Your task to perform on an android device: Open location settings Image 0: 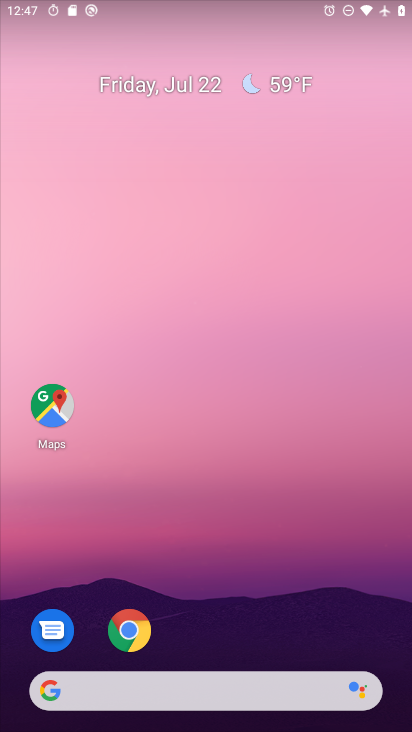
Step 0: press home button
Your task to perform on an android device: Open location settings Image 1: 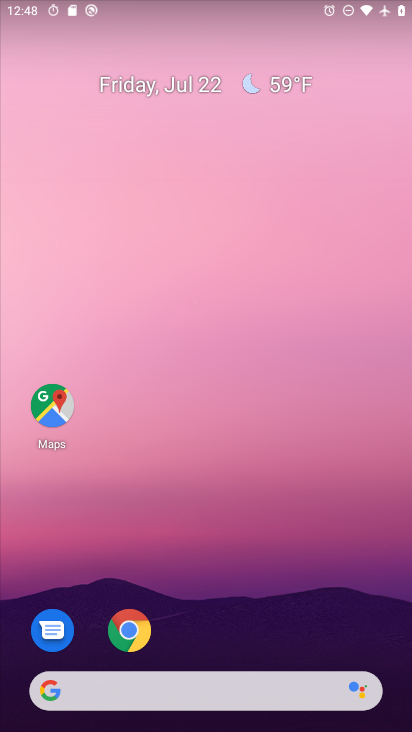
Step 1: drag from (229, 642) to (168, 242)
Your task to perform on an android device: Open location settings Image 2: 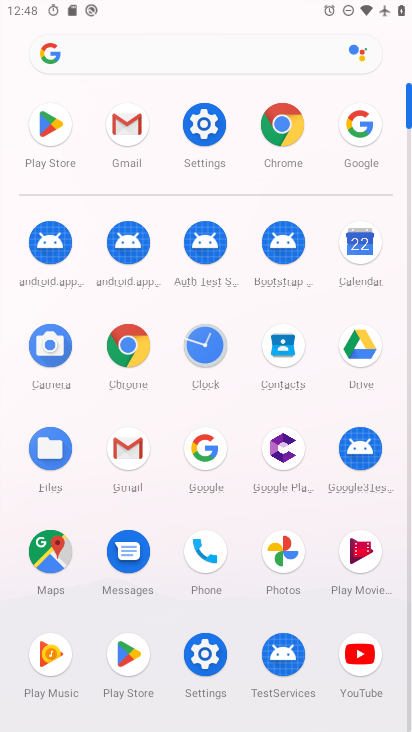
Step 2: click (207, 133)
Your task to perform on an android device: Open location settings Image 3: 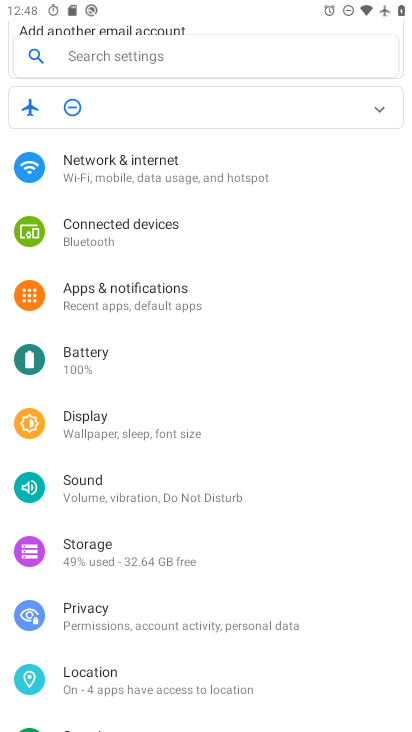
Step 3: click (70, 672)
Your task to perform on an android device: Open location settings Image 4: 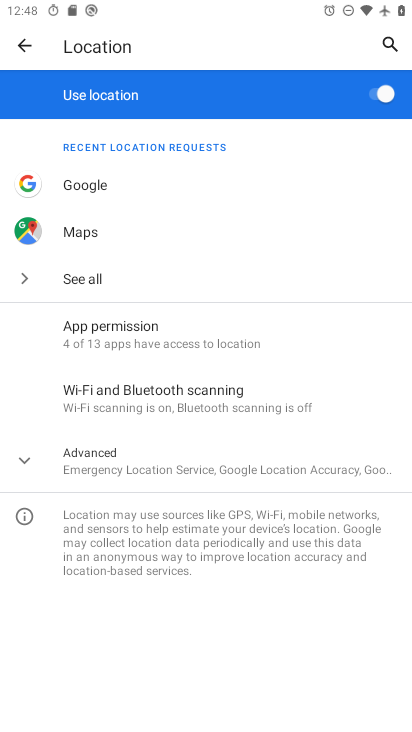
Step 4: task complete